Your task to perform on an android device: Go to eBay Image 0: 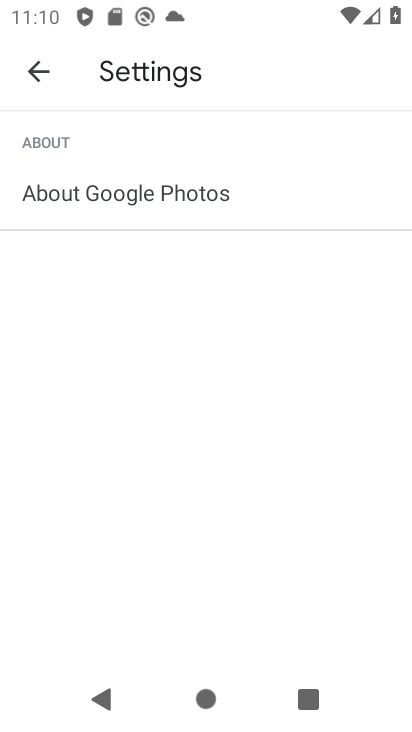
Step 0: press home button
Your task to perform on an android device: Go to eBay Image 1: 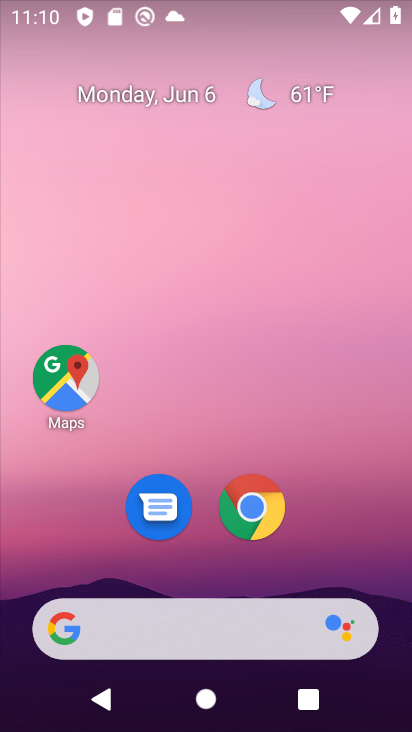
Step 1: drag from (308, 543) to (273, 60)
Your task to perform on an android device: Go to eBay Image 2: 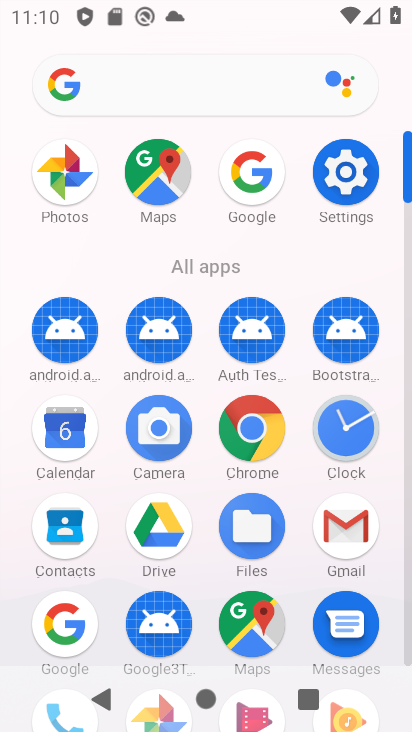
Step 2: click (250, 172)
Your task to perform on an android device: Go to eBay Image 3: 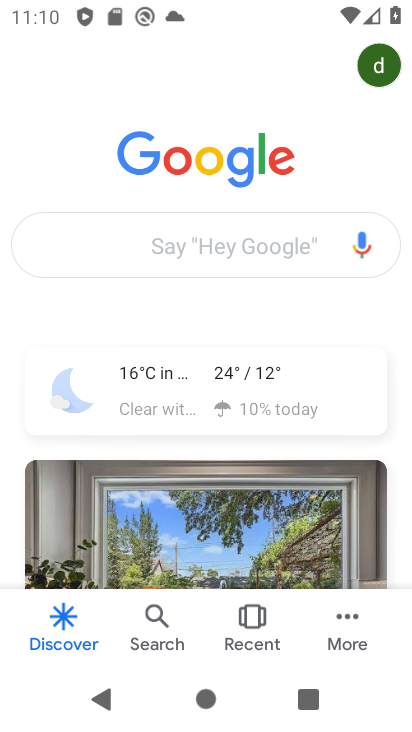
Step 3: click (226, 251)
Your task to perform on an android device: Go to eBay Image 4: 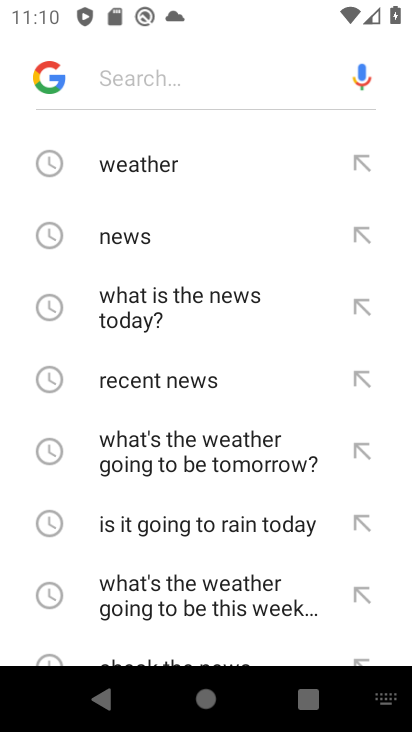
Step 4: drag from (220, 529) to (221, 133)
Your task to perform on an android device: Go to eBay Image 5: 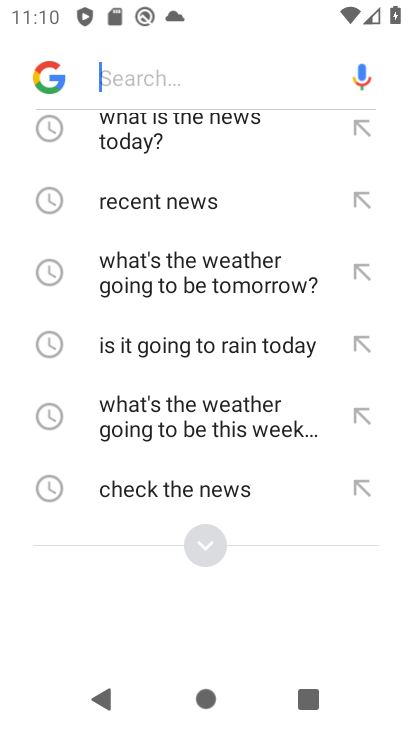
Step 5: click (205, 547)
Your task to perform on an android device: Go to eBay Image 6: 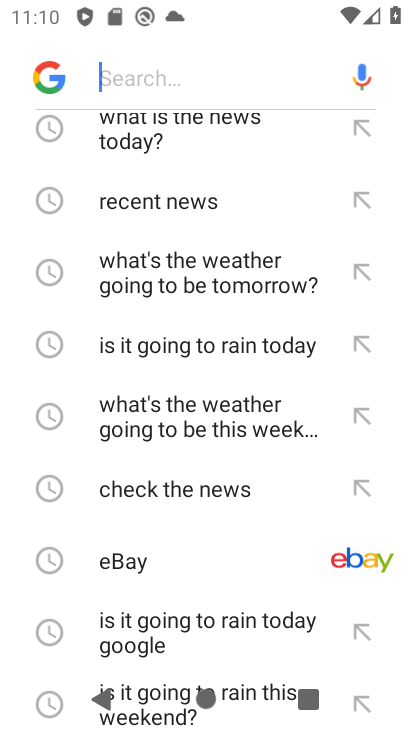
Step 6: click (156, 562)
Your task to perform on an android device: Go to eBay Image 7: 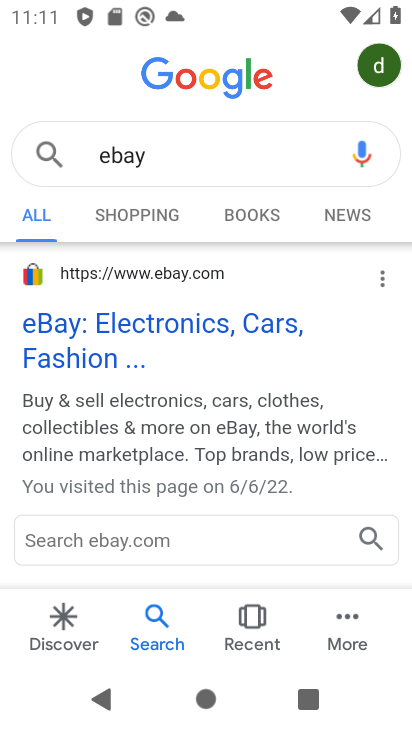
Step 7: click (155, 324)
Your task to perform on an android device: Go to eBay Image 8: 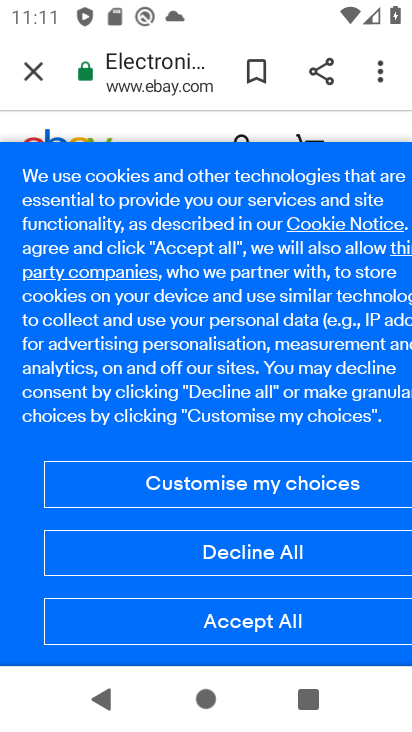
Step 8: task complete